Your task to perform on an android device: Open Wikipedia Image 0: 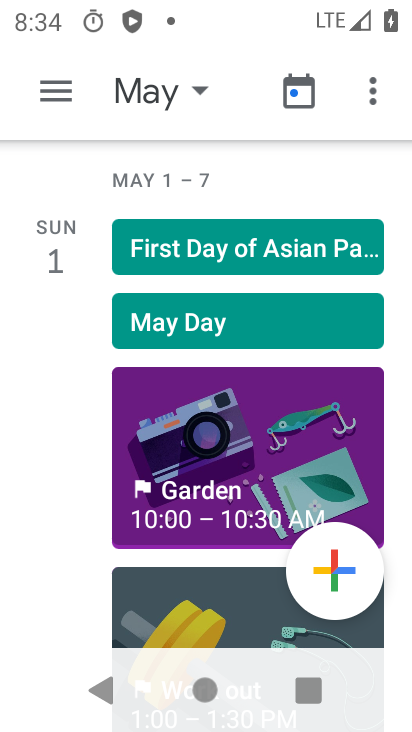
Step 0: drag from (260, 547) to (314, 244)
Your task to perform on an android device: Open Wikipedia Image 1: 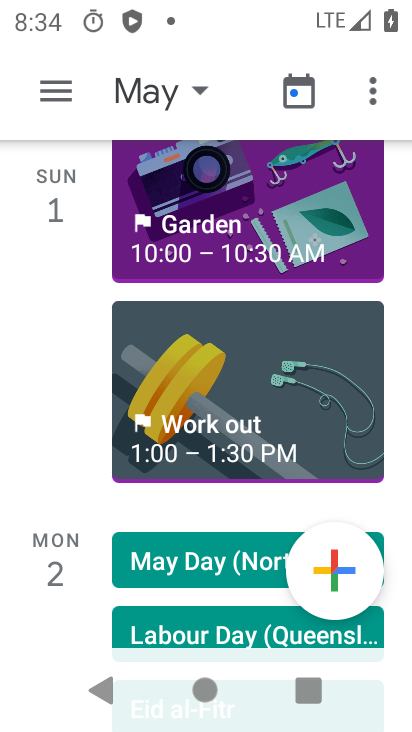
Step 1: drag from (324, 217) to (295, 715)
Your task to perform on an android device: Open Wikipedia Image 2: 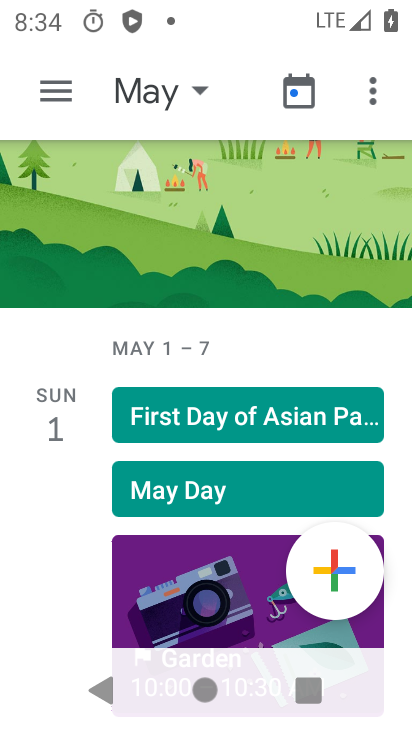
Step 2: press home button
Your task to perform on an android device: Open Wikipedia Image 3: 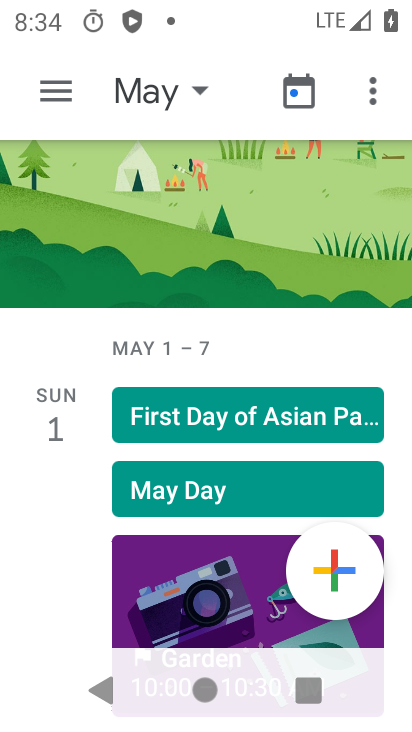
Step 3: drag from (295, 715) to (397, 650)
Your task to perform on an android device: Open Wikipedia Image 4: 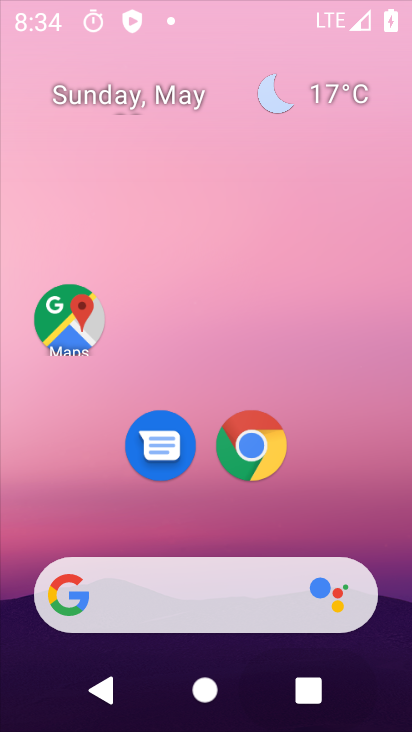
Step 4: drag from (279, 375) to (340, 131)
Your task to perform on an android device: Open Wikipedia Image 5: 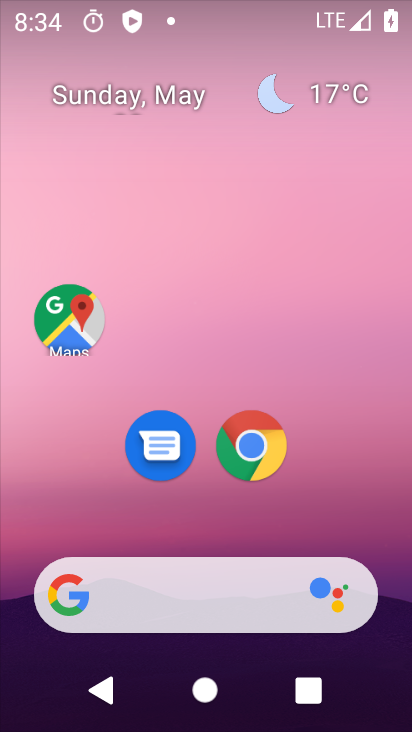
Step 5: drag from (195, 558) to (320, 4)
Your task to perform on an android device: Open Wikipedia Image 6: 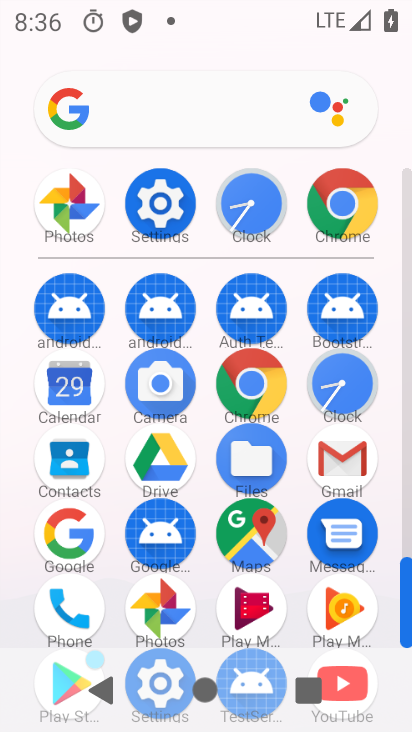
Step 6: click (176, 105)
Your task to perform on an android device: Open Wikipedia Image 7: 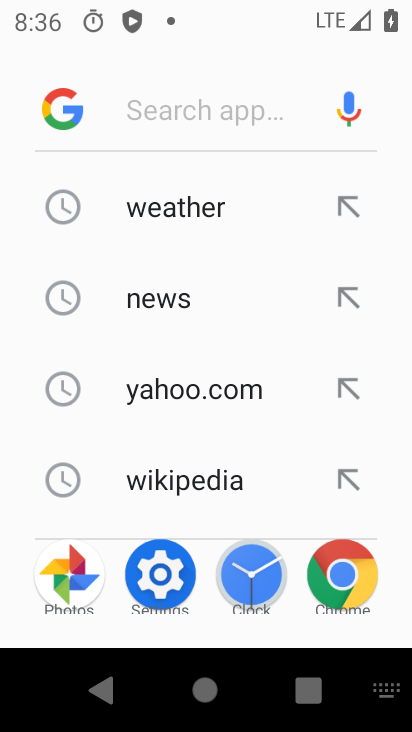
Step 7: click (170, 485)
Your task to perform on an android device: Open Wikipedia Image 8: 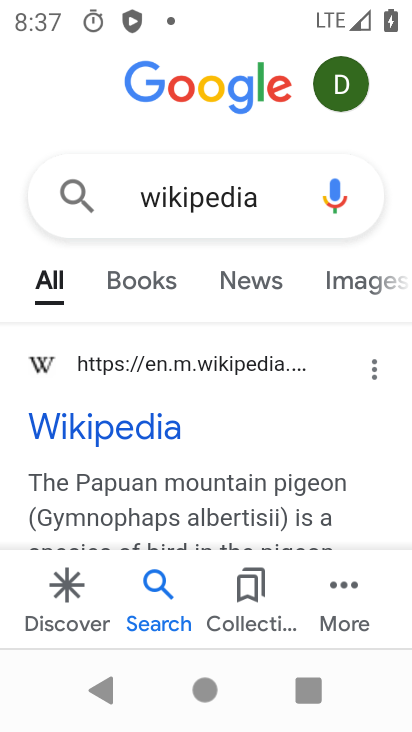
Step 8: click (98, 411)
Your task to perform on an android device: Open Wikipedia Image 9: 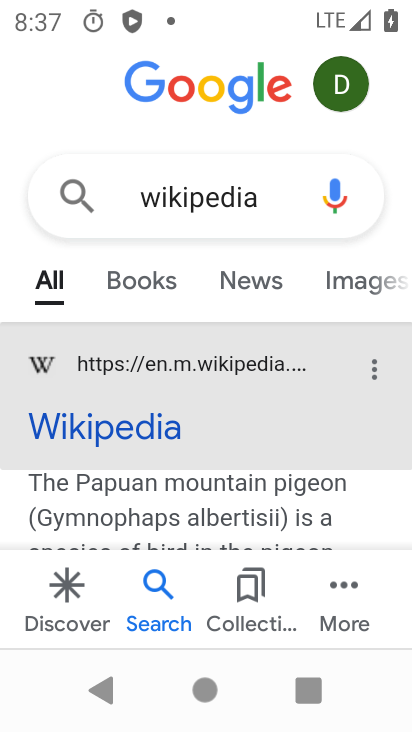
Step 9: click (52, 436)
Your task to perform on an android device: Open Wikipedia Image 10: 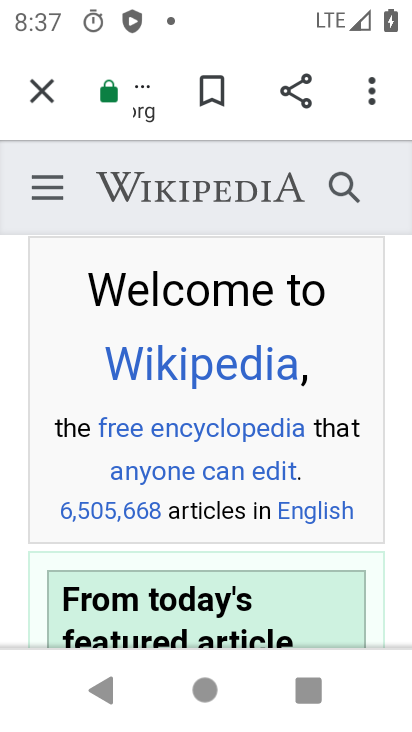
Step 10: task complete